Your task to perform on an android device: toggle notification dots Image 0: 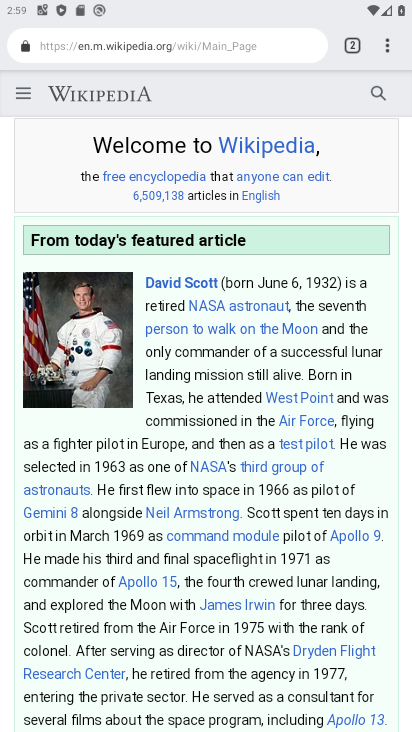
Step 0: press back button
Your task to perform on an android device: toggle notification dots Image 1: 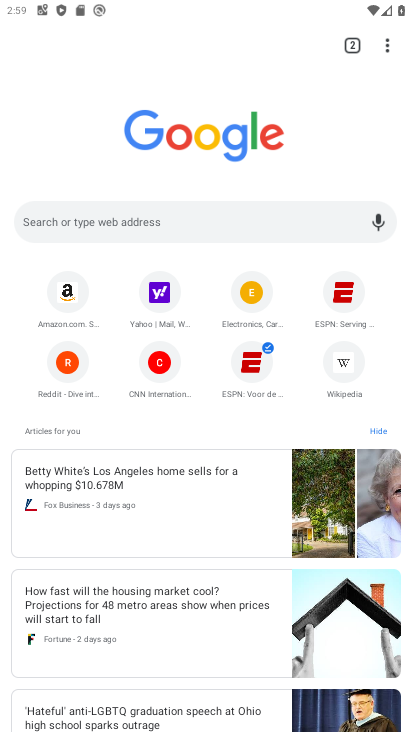
Step 1: press back button
Your task to perform on an android device: toggle notification dots Image 2: 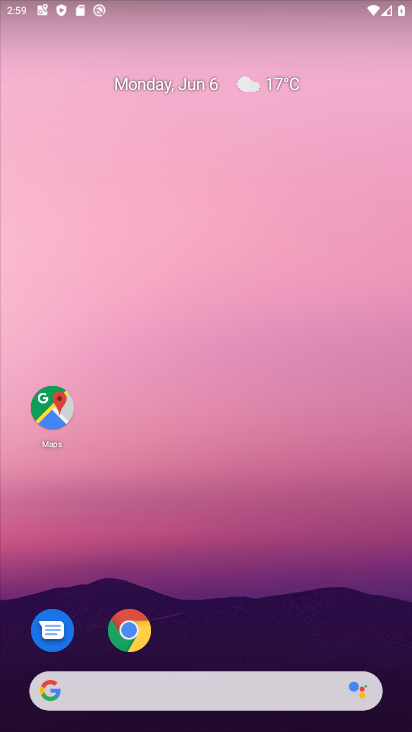
Step 2: drag from (206, 604) to (287, 44)
Your task to perform on an android device: toggle notification dots Image 3: 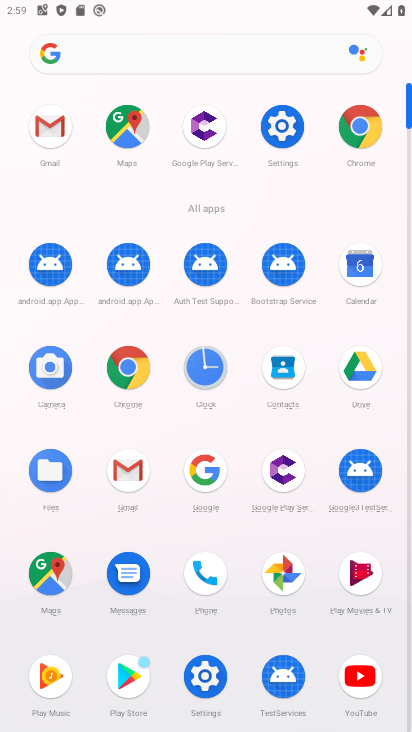
Step 3: click (278, 131)
Your task to perform on an android device: toggle notification dots Image 4: 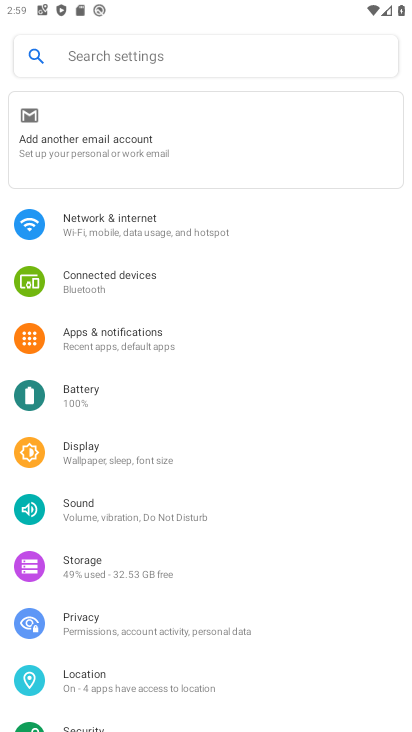
Step 4: click (113, 333)
Your task to perform on an android device: toggle notification dots Image 5: 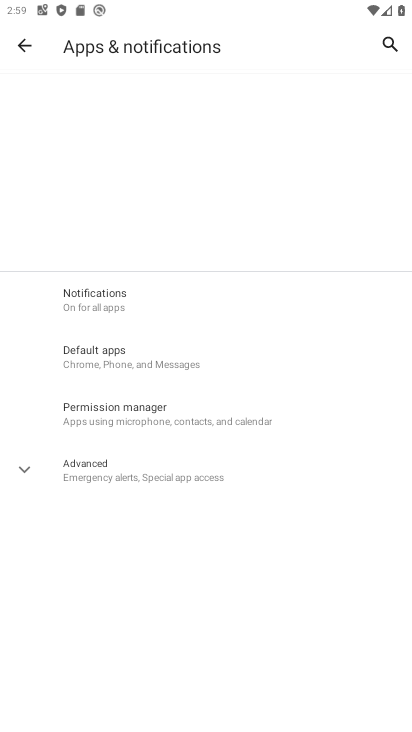
Step 5: click (108, 296)
Your task to perform on an android device: toggle notification dots Image 6: 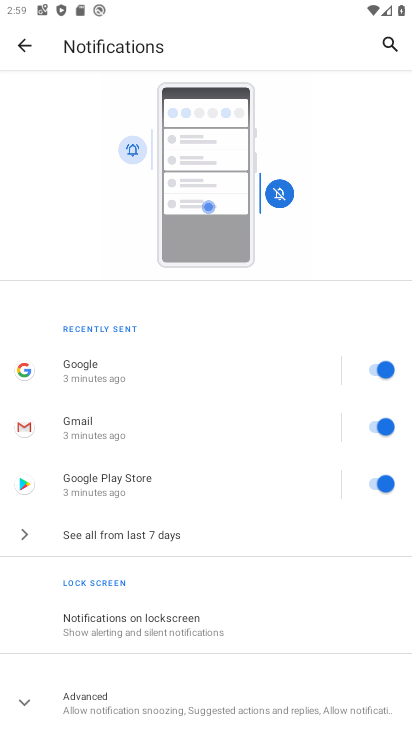
Step 6: drag from (169, 675) to (237, 197)
Your task to perform on an android device: toggle notification dots Image 7: 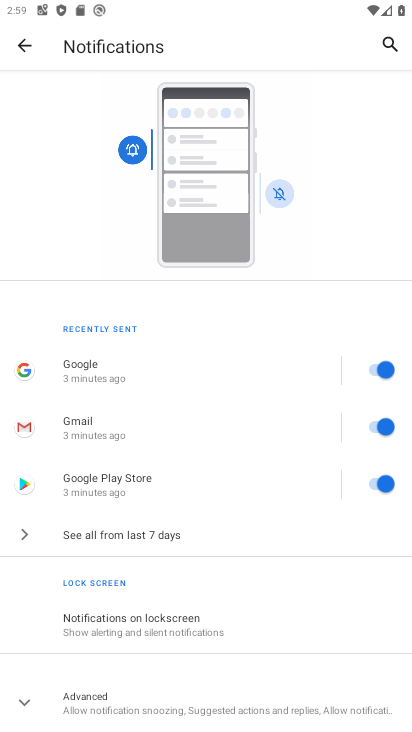
Step 7: click (140, 701)
Your task to perform on an android device: toggle notification dots Image 8: 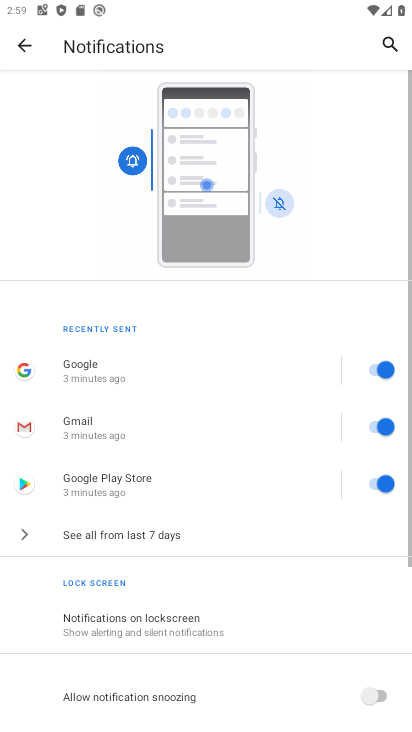
Step 8: drag from (163, 673) to (269, 157)
Your task to perform on an android device: toggle notification dots Image 9: 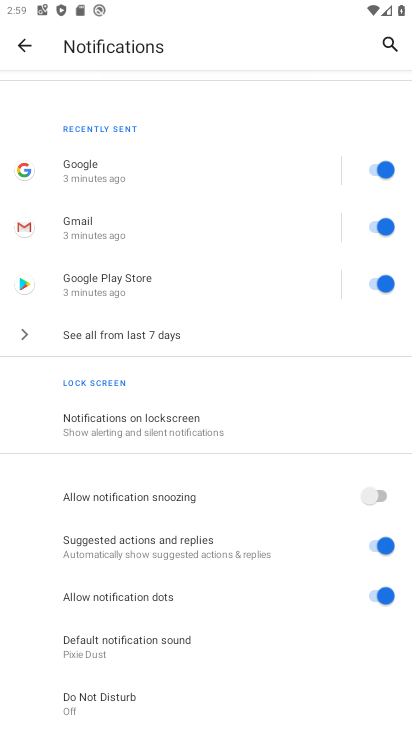
Step 9: click (382, 595)
Your task to perform on an android device: toggle notification dots Image 10: 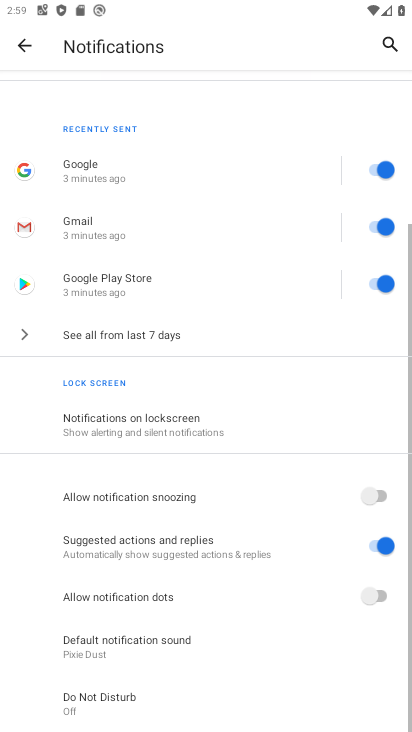
Step 10: task complete